Your task to perform on an android device: change notifications settings Image 0: 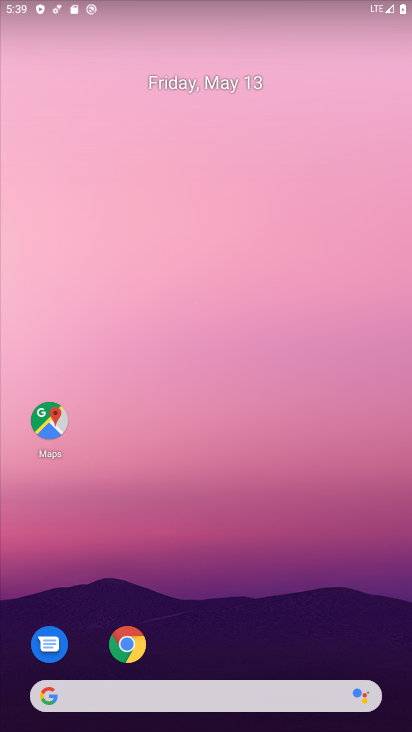
Step 0: drag from (220, 579) to (278, 96)
Your task to perform on an android device: change notifications settings Image 1: 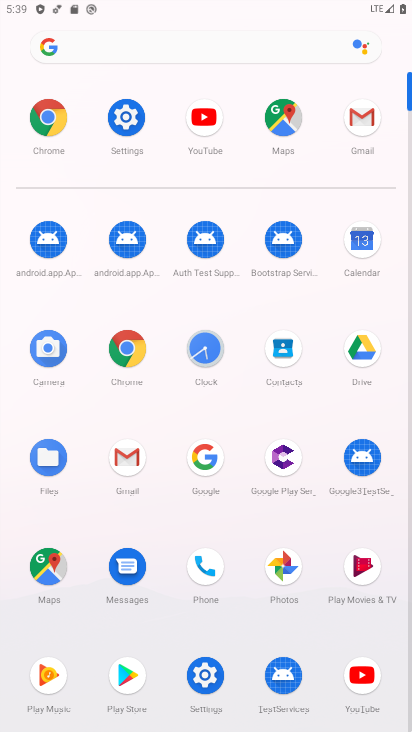
Step 1: click (202, 673)
Your task to perform on an android device: change notifications settings Image 2: 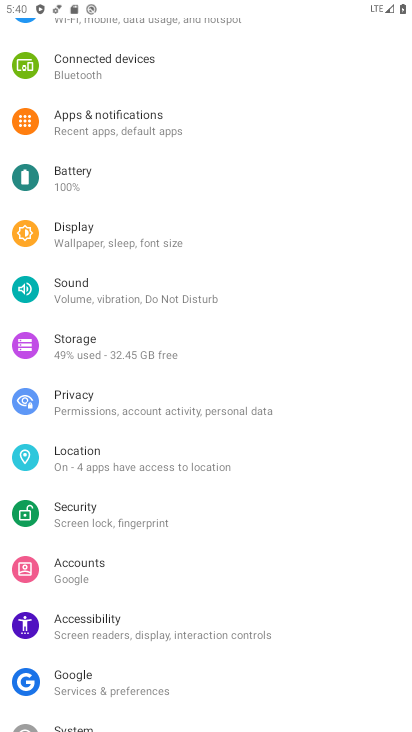
Step 2: click (134, 127)
Your task to perform on an android device: change notifications settings Image 3: 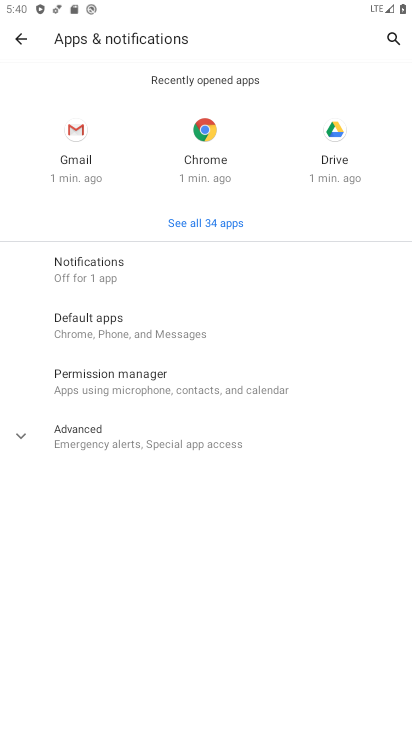
Step 3: click (103, 284)
Your task to perform on an android device: change notifications settings Image 4: 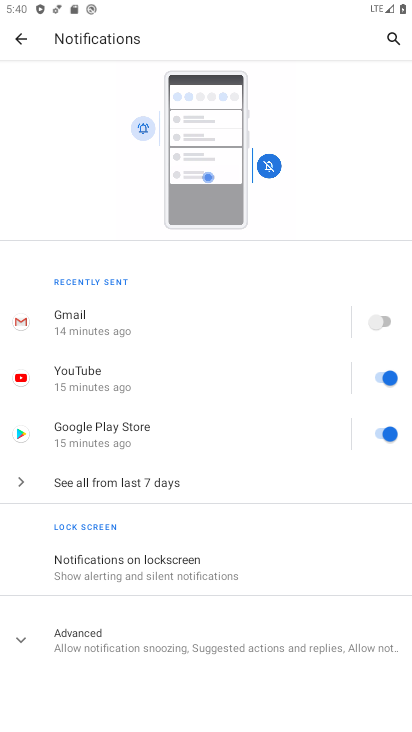
Step 4: click (385, 374)
Your task to perform on an android device: change notifications settings Image 5: 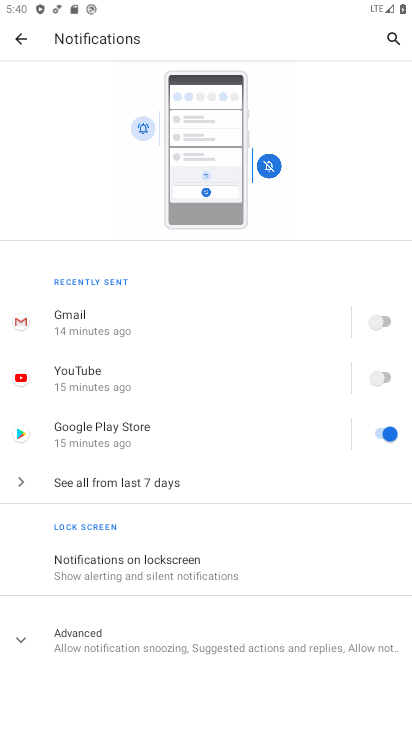
Step 5: click (384, 433)
Your task to perform on an android device: change notifications settings Image 6: 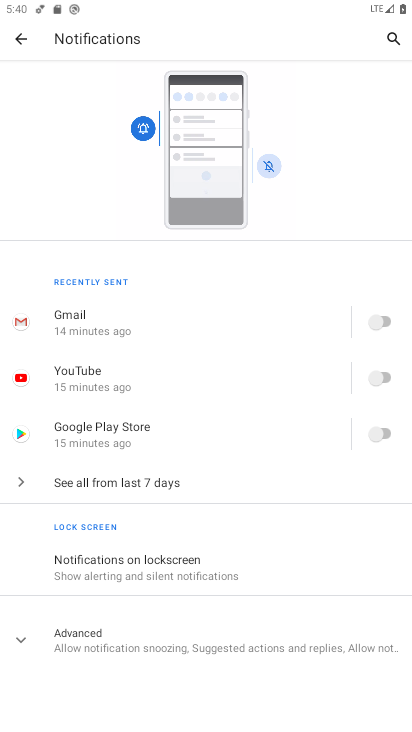
Step 6: click (152, 489)
Your task to perform on an android device: change notifications settings Image 7: 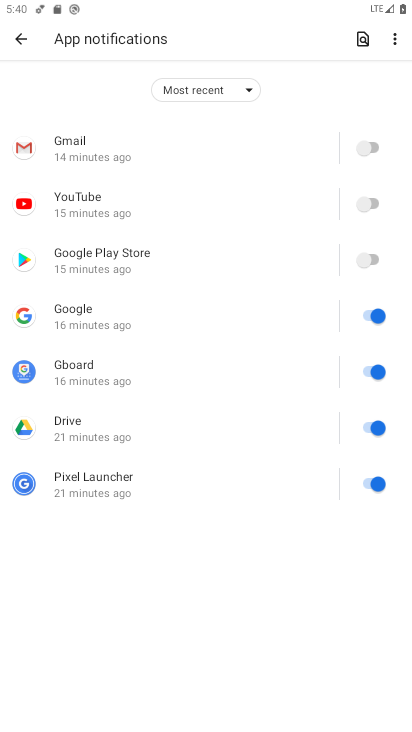
Step 7: click (374, 319)
Your task to perform on an android device: change notifications settings Image 8: 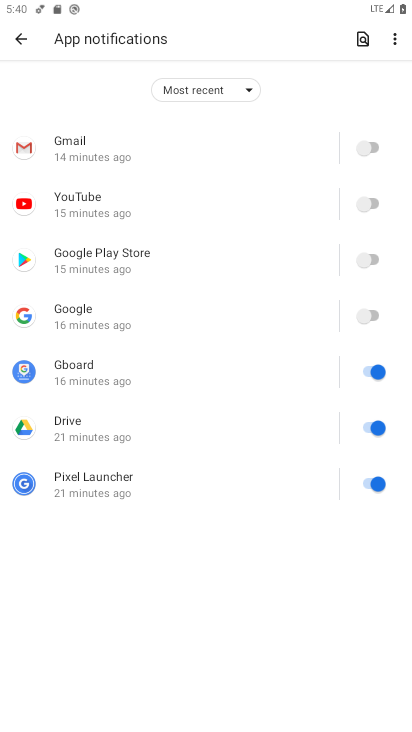
Step 8: click (369, 377)
Your task to perform on an android device: change notifications settings Image 9: 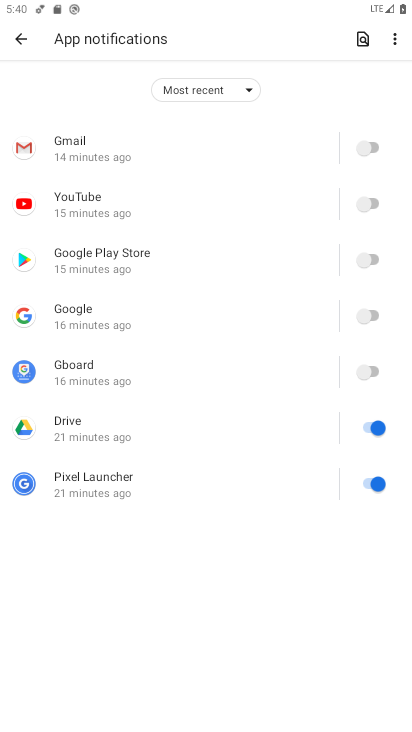
Step 9: click (369, 432)
Your task to perform on an android device: change notifications settings Image 10: 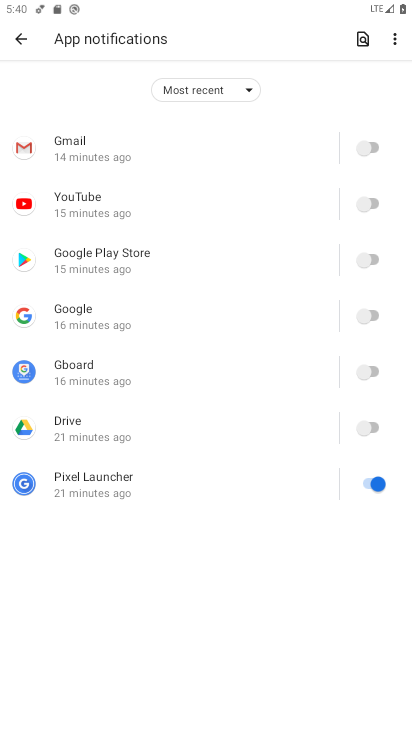
Step 10: click (373, 485)
Your task to perform on an android device: change notifications settings Image 11: 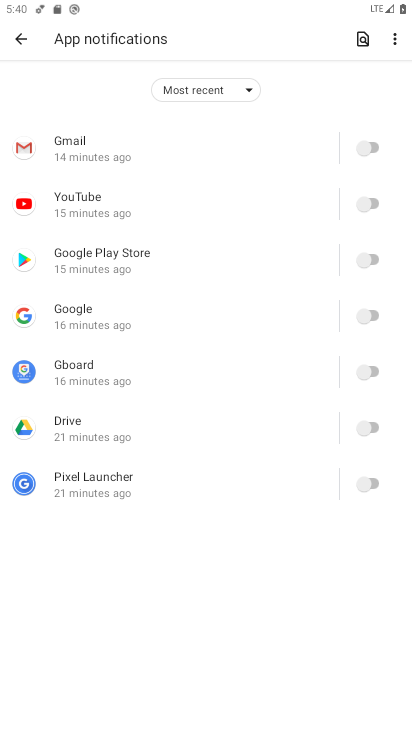
Step 11: task complete